Your task to perform on an android device: Open maps Image 0: 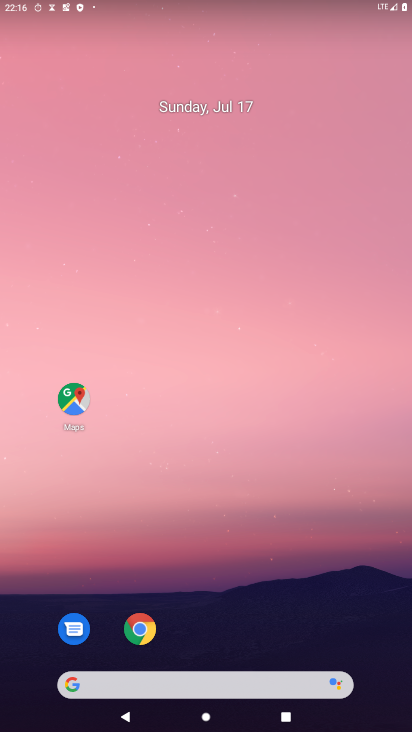
Step 0: drag from (232, 723) to (248, 32)
Your task to perform on an android device: Open maps Image 1: 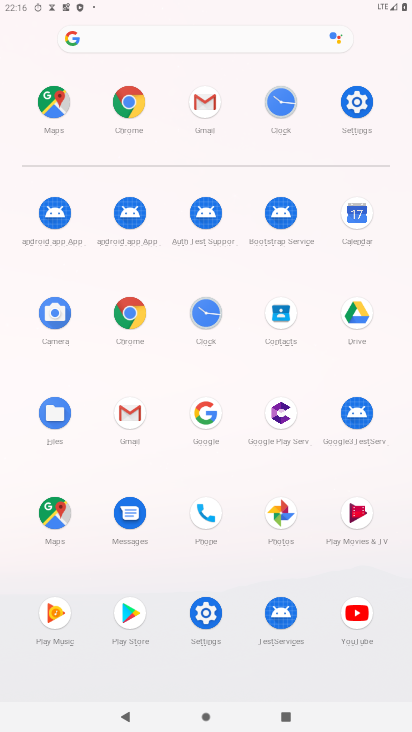
Step 1: click (47, 508)
Your task to perform on an android device: Open maps Image 2: 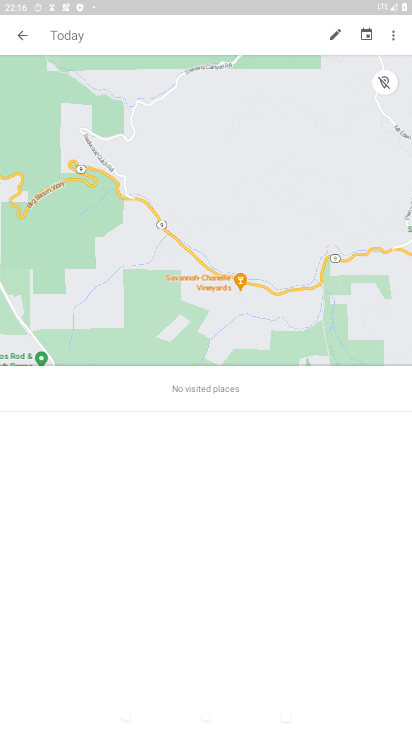
Step 2: task complete